Your task to perform on an android device: turn on the 12-hour format for clock Image 0: 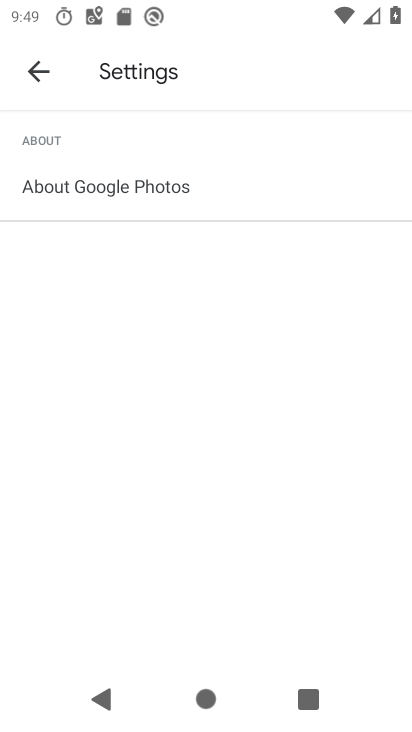
Step 0: task impossible